Your task to perform on an android device: set an alarm Image 0: 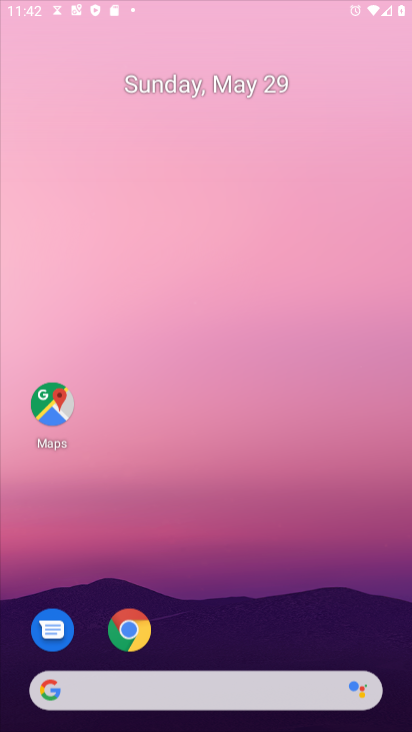
Step 0: click (195, 19)
Your task to perform on an android device: set an alarm Image 1: 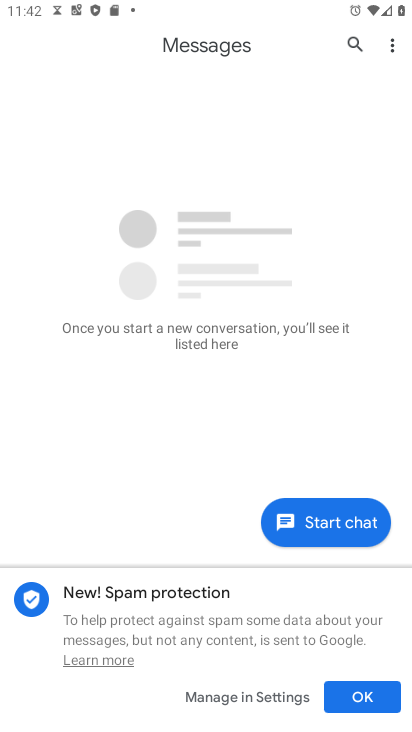
Step 1: press home button
Your task to perform on an android device: set an alarm Image 2: 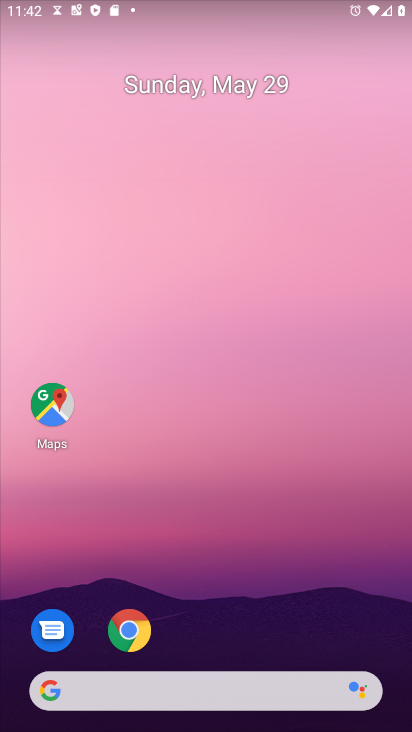
Step 2: drag from (280, 299) to (258, 0)
Your task to perform on an android device: set an alarm Image 3: 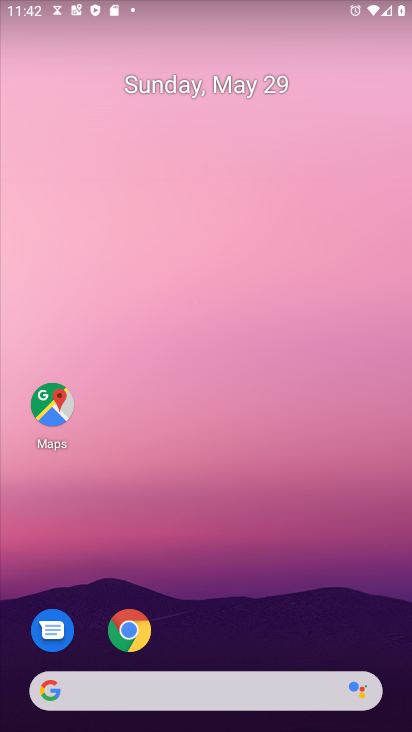
Step 3: drag from (204, 651) to (214, 19)
Your task to perform on an android device: set an alarm Image 4: 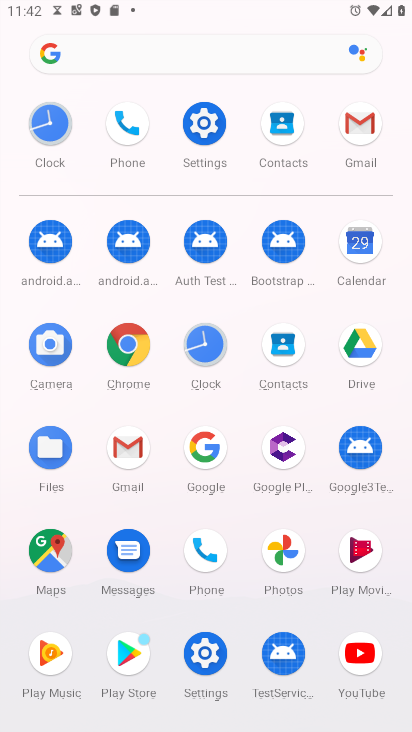
Step 4: click (32, 130)
Your task to perform on an android device: set an alarm Image 5: 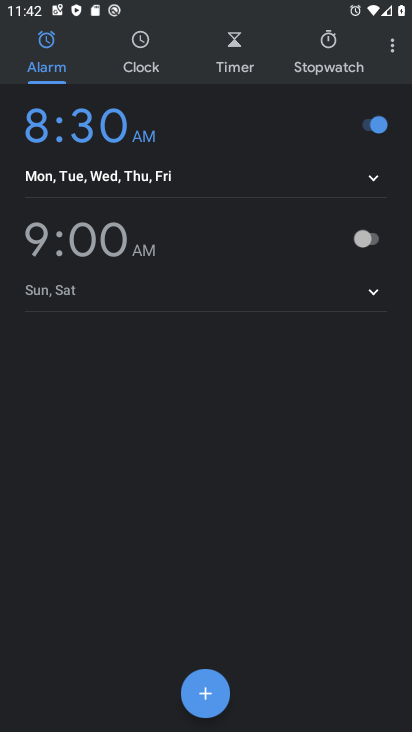
Step 5: click (97, 231)
Your task to perform on an android device: set an alarm Image 6: 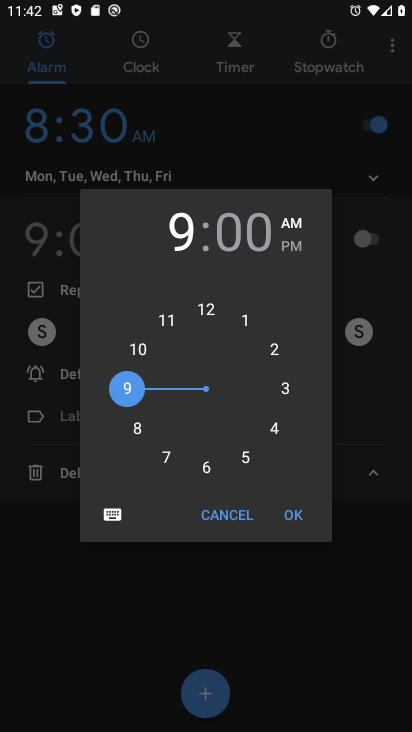
Step 6: click (273, 521)
Your task to perform on an android device: set an alarm Image 7: 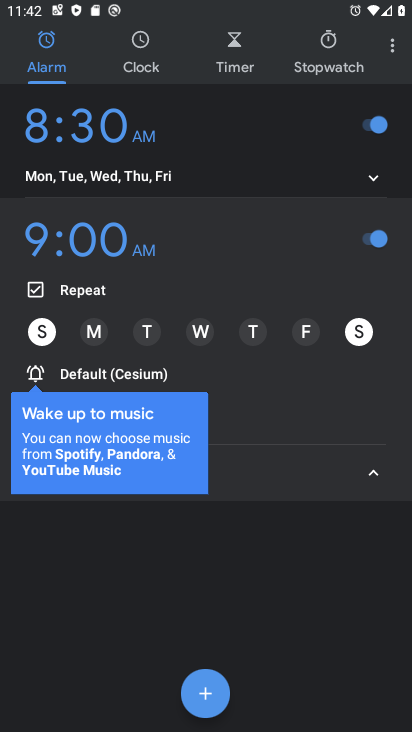
Step 7: task complete